Your task to perform on an android device: turn off sleep mode Image 0: 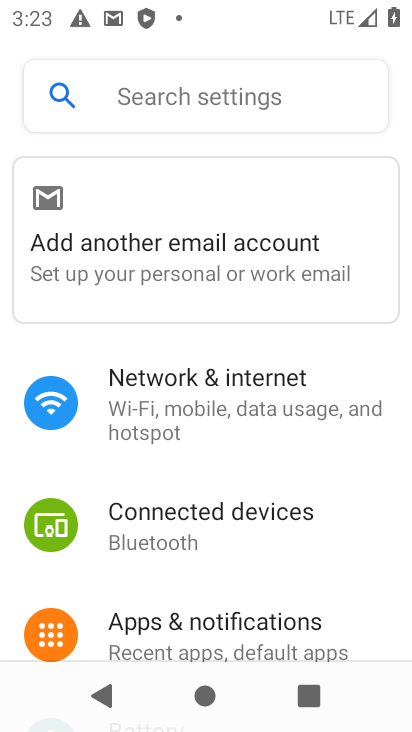
Step 0: press home button
Your task to perform on an android device: turn off sleep mode Image 1: 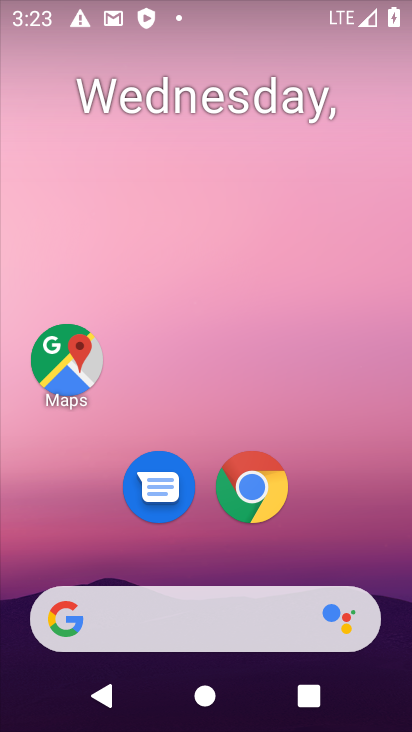
Step 1: drag from (337, 516) to (298, 48)
Your task to perform on an android device: turn off sleep mode Image 2: 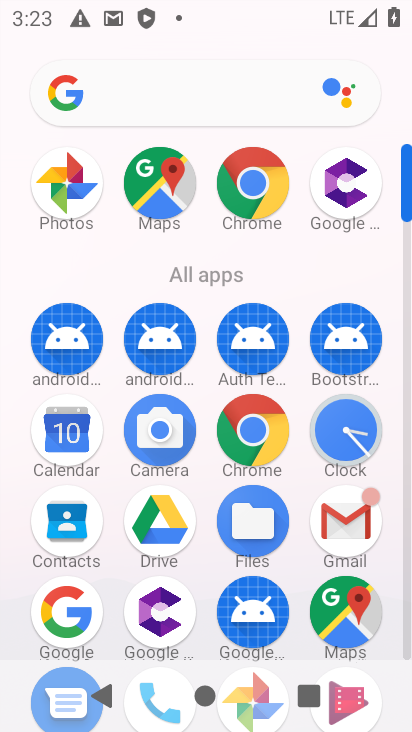
Step 2: drag from (197, 578) to (220, 194)
Your task to perform on an android device: turn off sleep mode Image 3: 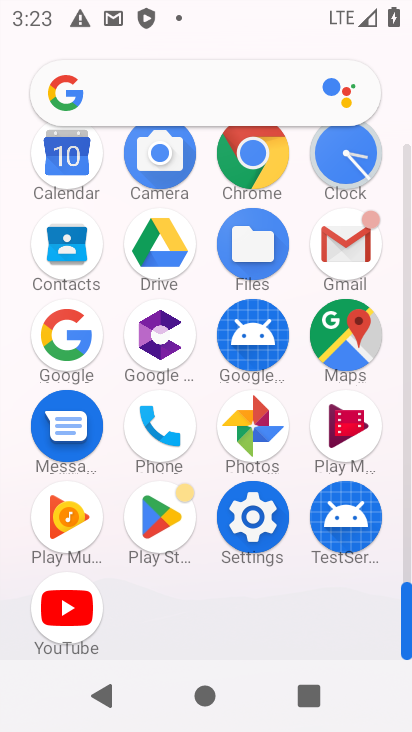
Step 3: click (256, 523)
Your task to perform on an android device: turn off sleep mode Image 4: 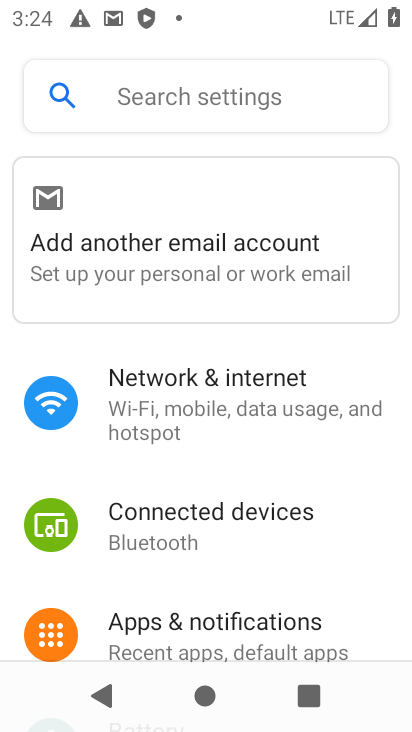
Step 4: drag from (306, 527) to (286, 269)
Your task to perform on an android device: turn off sleep mode Image 5: 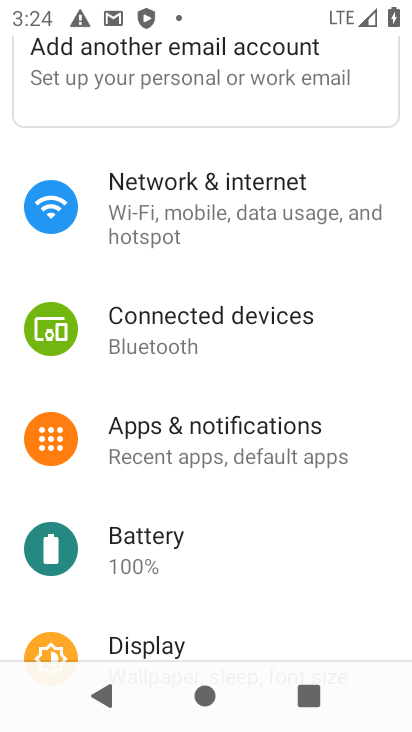
Step 5: drag from (244, 583) to (352, 153)
Your task to perform on an android device: turn off sleep mode Image 6: 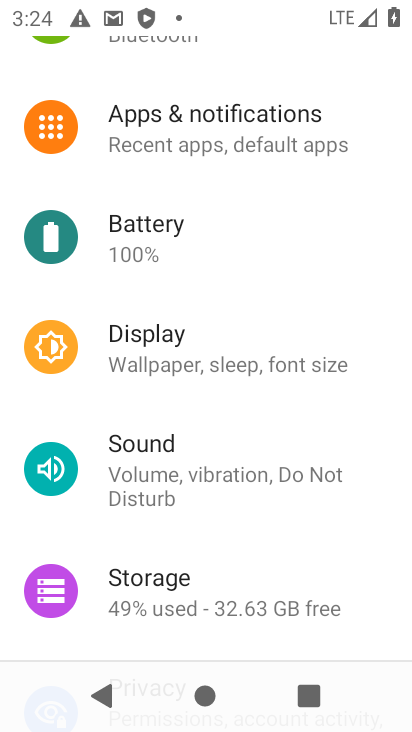
Step 6: click (174, 340)
Your task to perform on an android device: turn off sleep mode Image 7: 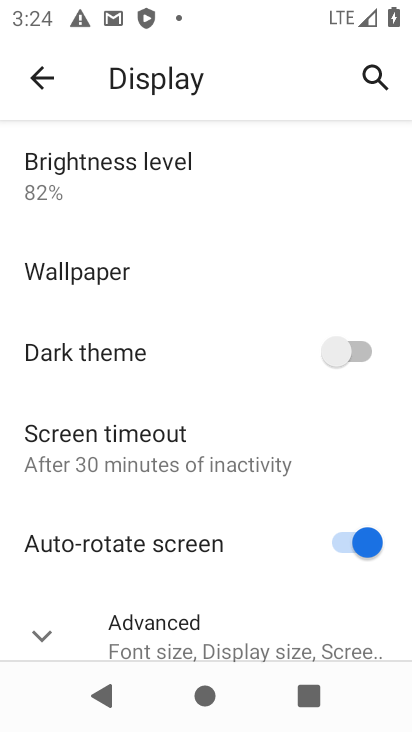
Step 7: click (163, 460)
Your task to perform on an android device: turn off sleep mode Image 8: 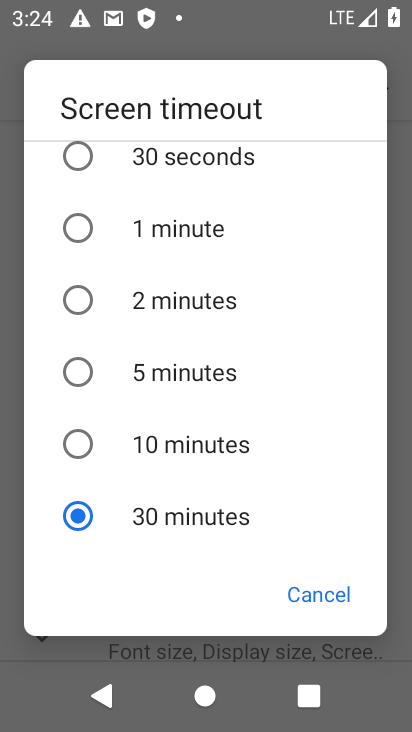
Step 8: task complete